Your task to perform on an android device: Open calendar and show me the second week of next month Image 0: 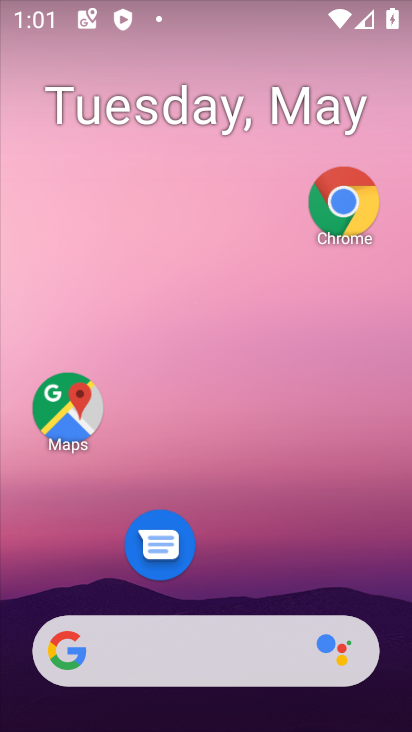
Step 0: click (230, 118)
Your task to perform on an android device: Open calendar and show me the second week of next month Image 1: 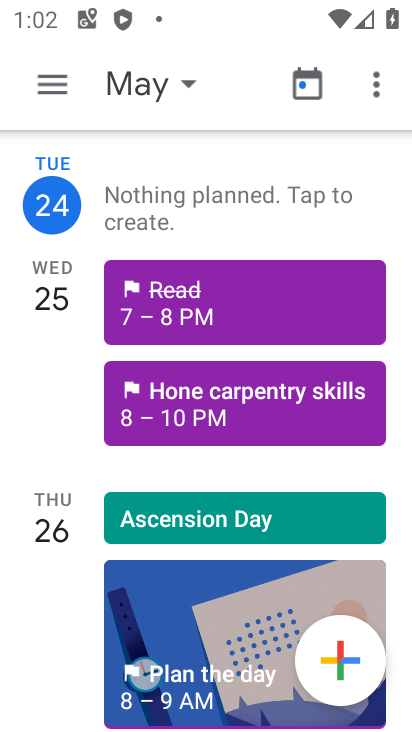
Step 1: click (177, 105)
Your task to perform on an android device: Open calendar and show me the second week of next month Image 2: 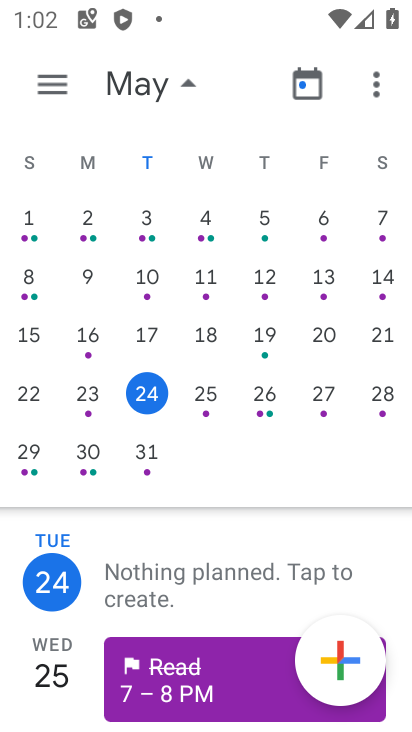
Step 2: drag from (279, 471) to (50, 493)
Your task to perform on an android device: Open calendar and show me the second week of next month Image 3: 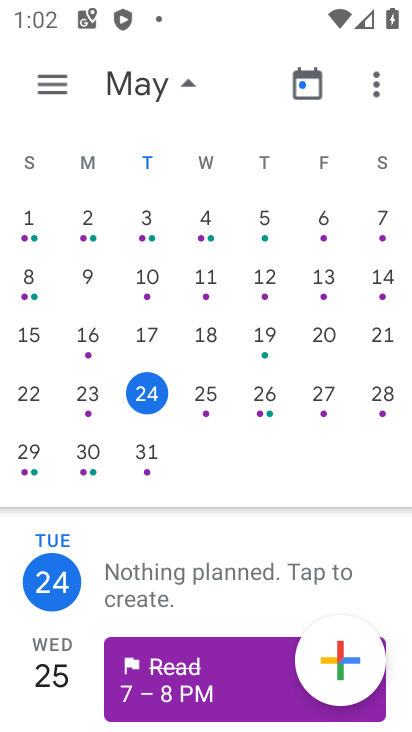
Step 3: drag from (346, 444) to (14, 397)
Your task to perform on an android device: Open calendar and show me the second week of next month Image 4: 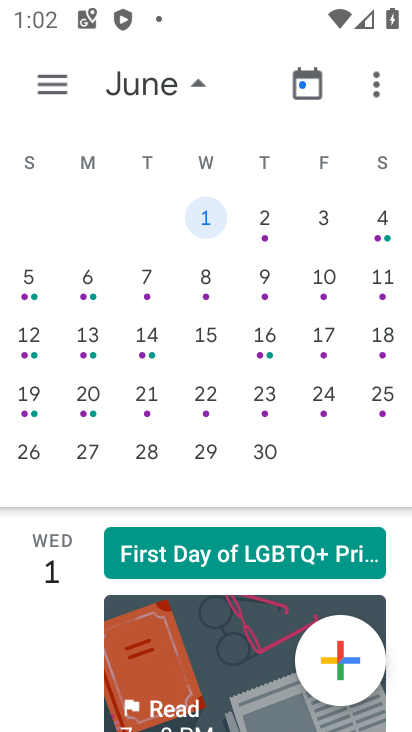
Step 4: click (202, 293)
Your task to perform on an android device: Open calendar and show me the second week of next month Image 5: 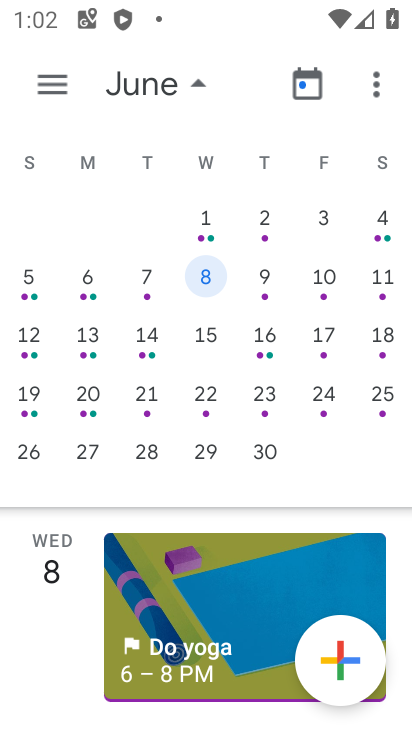
Step 5: task complete